Your task to perform on an android device: Go to location settings Image 0: 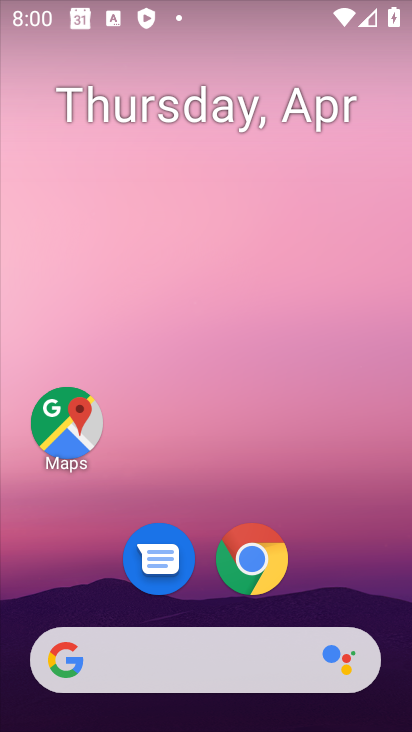
Step 0: drag from (220, 716) to (304, 253)
Your task to perform on an android device: Go to location settings Image 1: 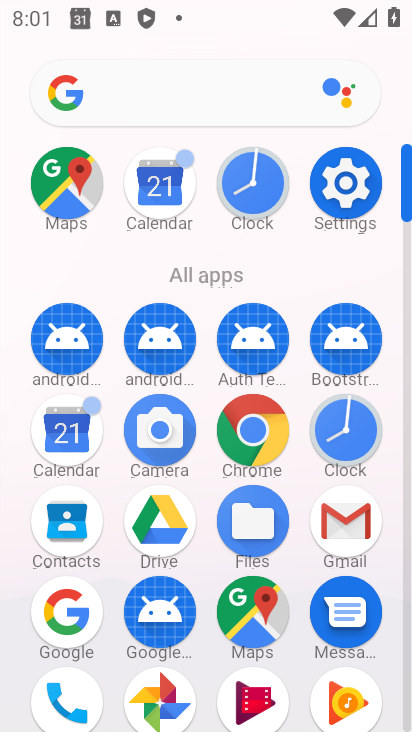
Step 1: click (344, 198)
Your task to perform on an android device: Go to location settings Image 2: 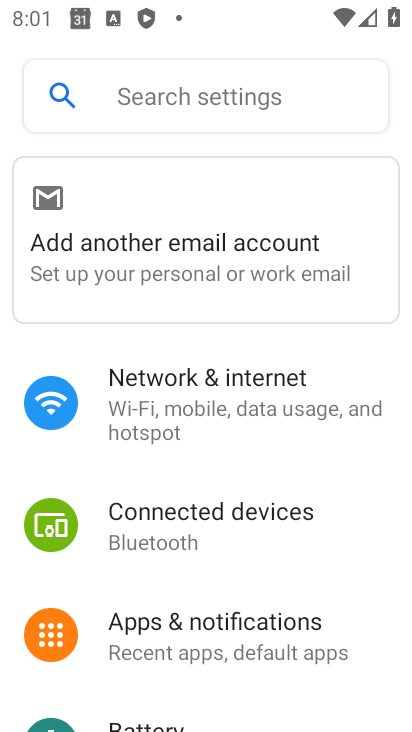
Step 2: drag from (345, 622) to (243, 136)
Your task to perform on an android device: Go to location settings Image 3: 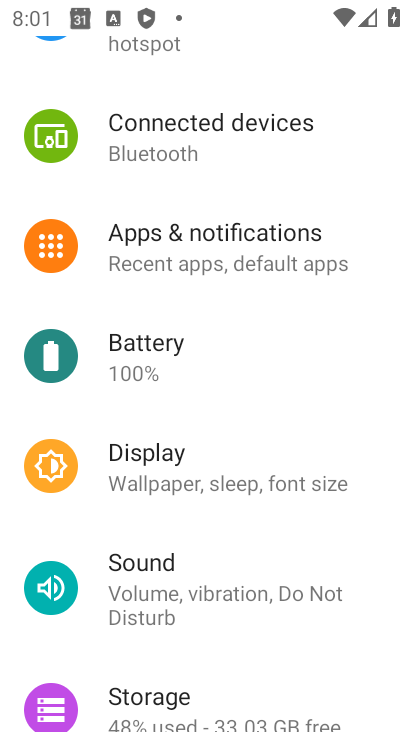
Step 3: drag from (285, 655) to (242, 80)
Your task to perform on an android device: Go to location settings Image 4: 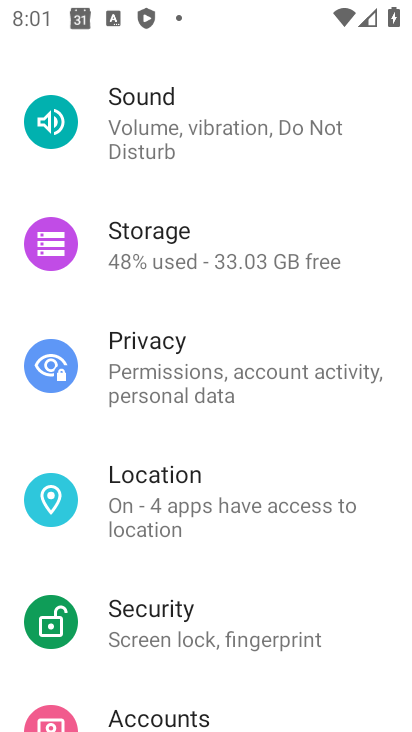
Step 4: click (151, 497)
Your task to perform on an android device: Go to location settings Image 5: 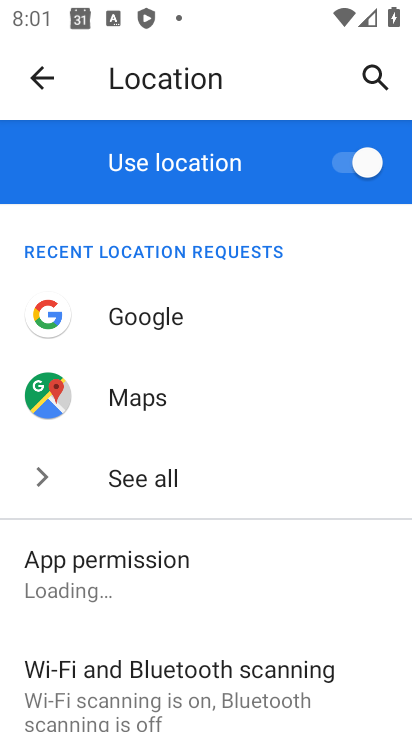
Step 5: task complete